Your task to perform on an android device: Clear the cart on walmart. Add lenovo thinkpad to the cart on walmart, then select checkout. Image 0: 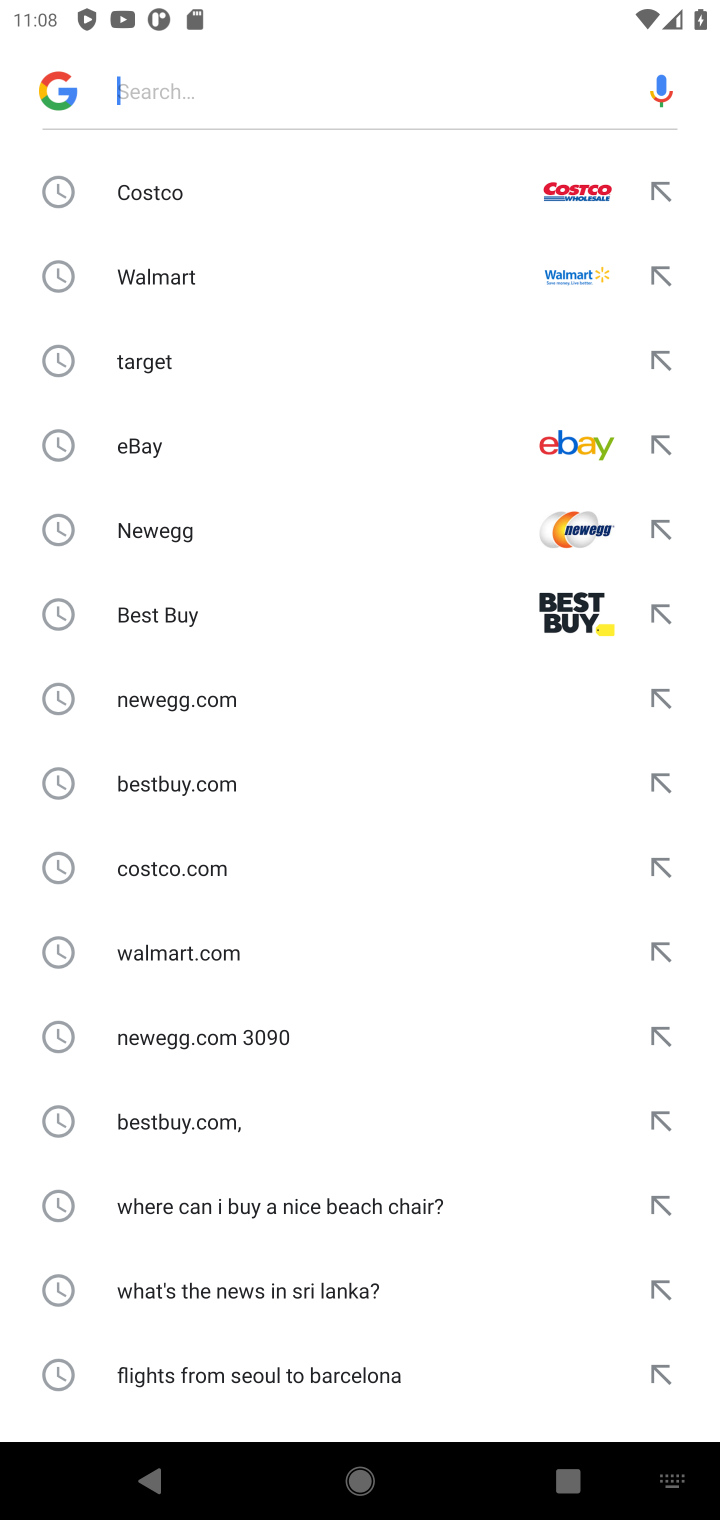
Step 0: click (205, 290)
Your task to perform on an android device: Clear the cart on walmart. Add lenovo thinkpad to the cart on walmart, then select checkout. Image 1: 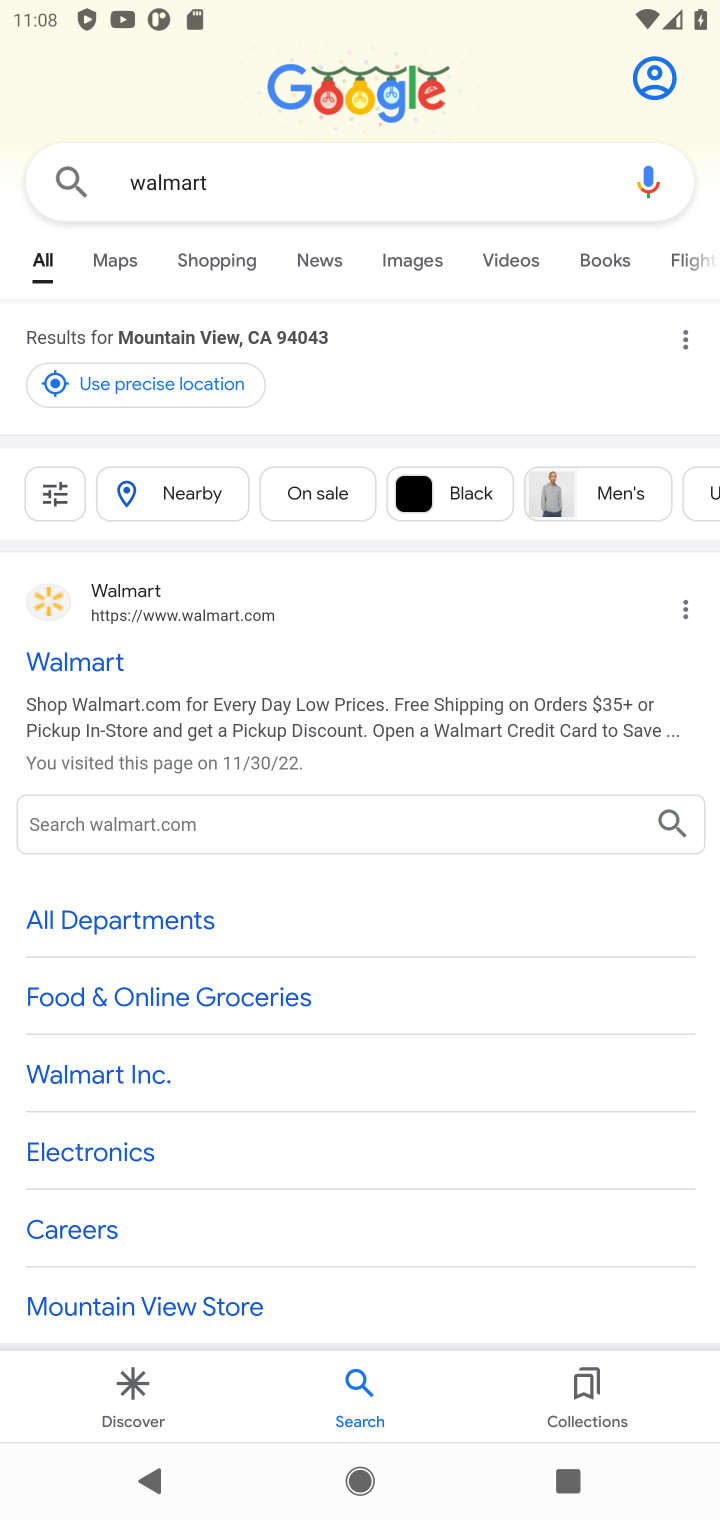
Step 1: click (67, 667)
Your task to perform on an android device: Clear the cart on walmart. Add lenovo thinkpad to the cart on walmart, then select checkout. Image 2: 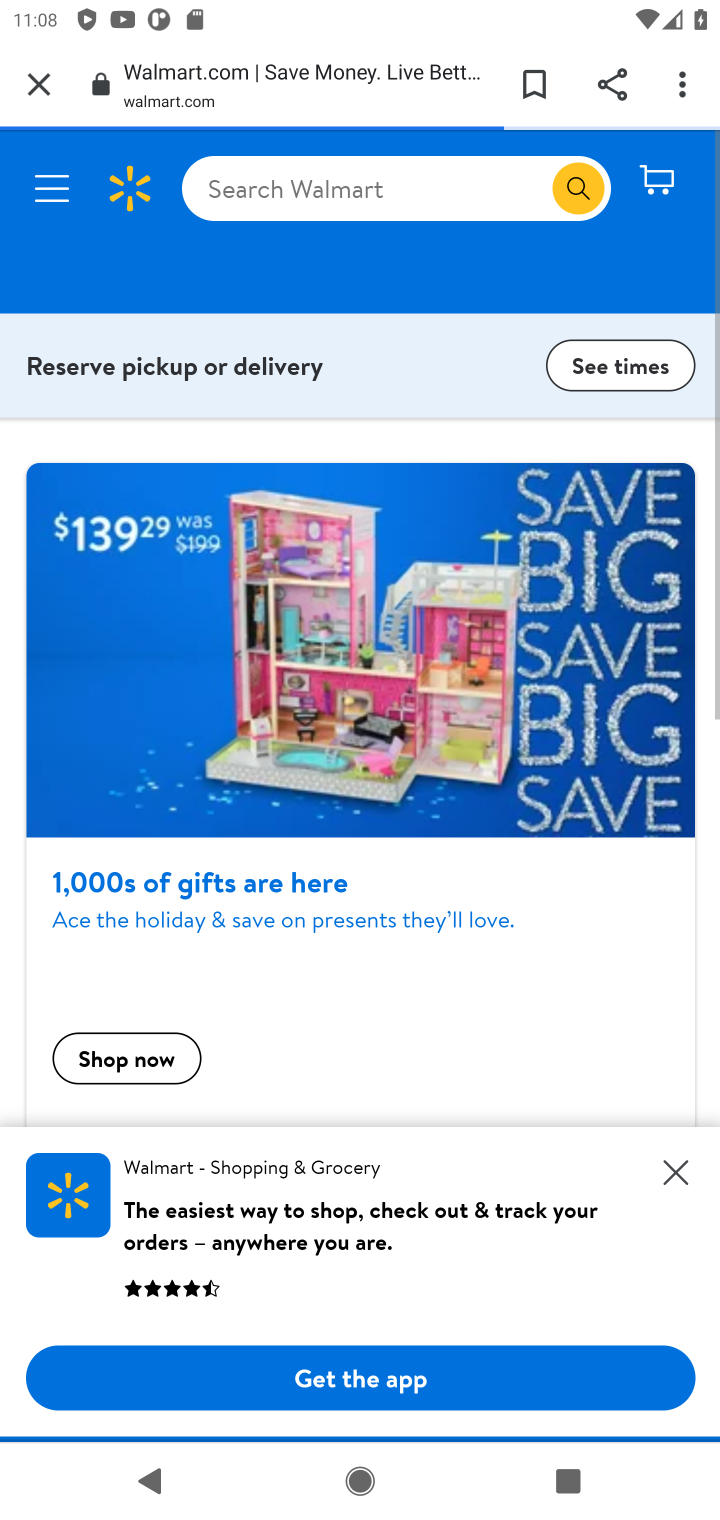
Step 2: click (369, 191)
Your task to perform on an android device: Clear the cart on walmart. Add lenovo thinkpad to the cart on walmart, then select checkout. Image 3: 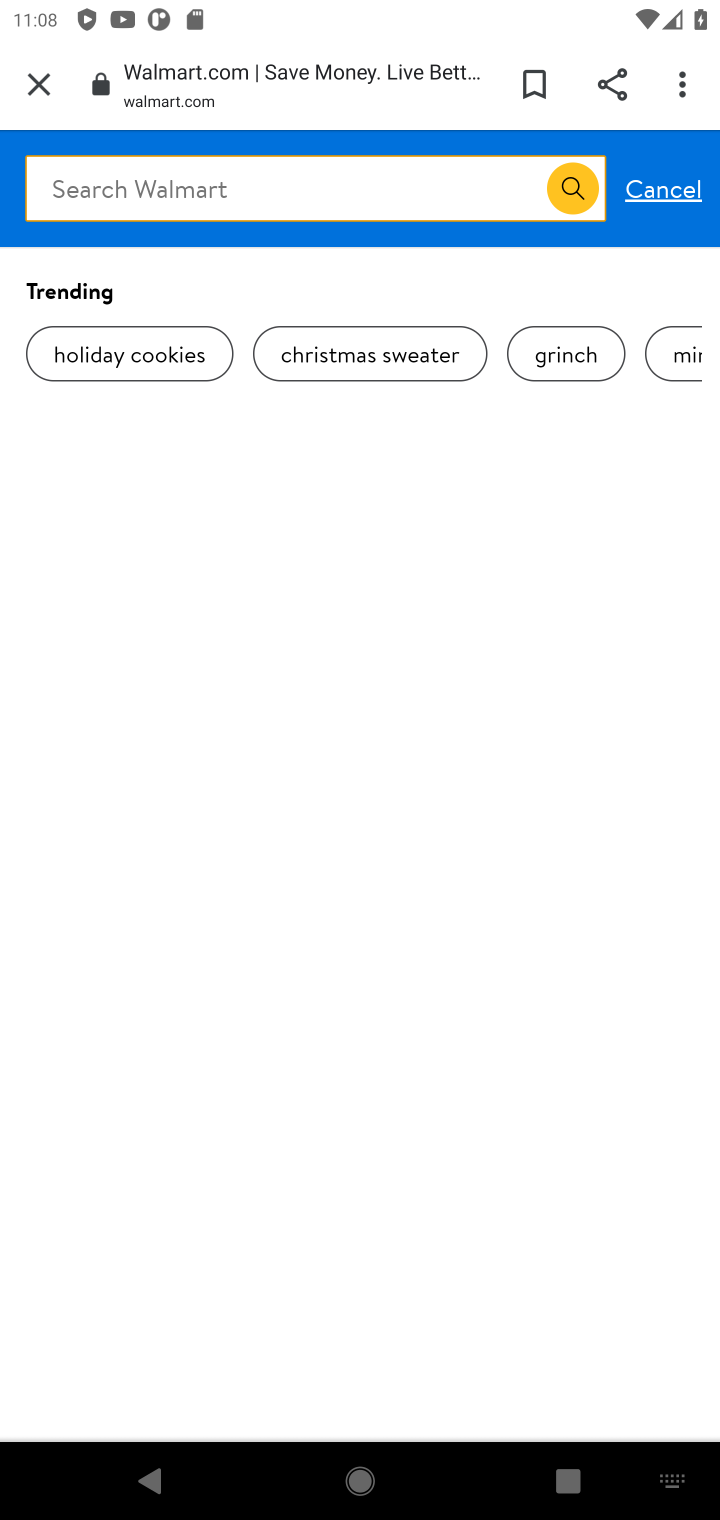
Step 3: type "lenovo thinkpad"
Your task to perform on an android device: Clear the cart on walmart. Add lenovo thinkpad to the cart on walmart, then select checkout. Image 4: 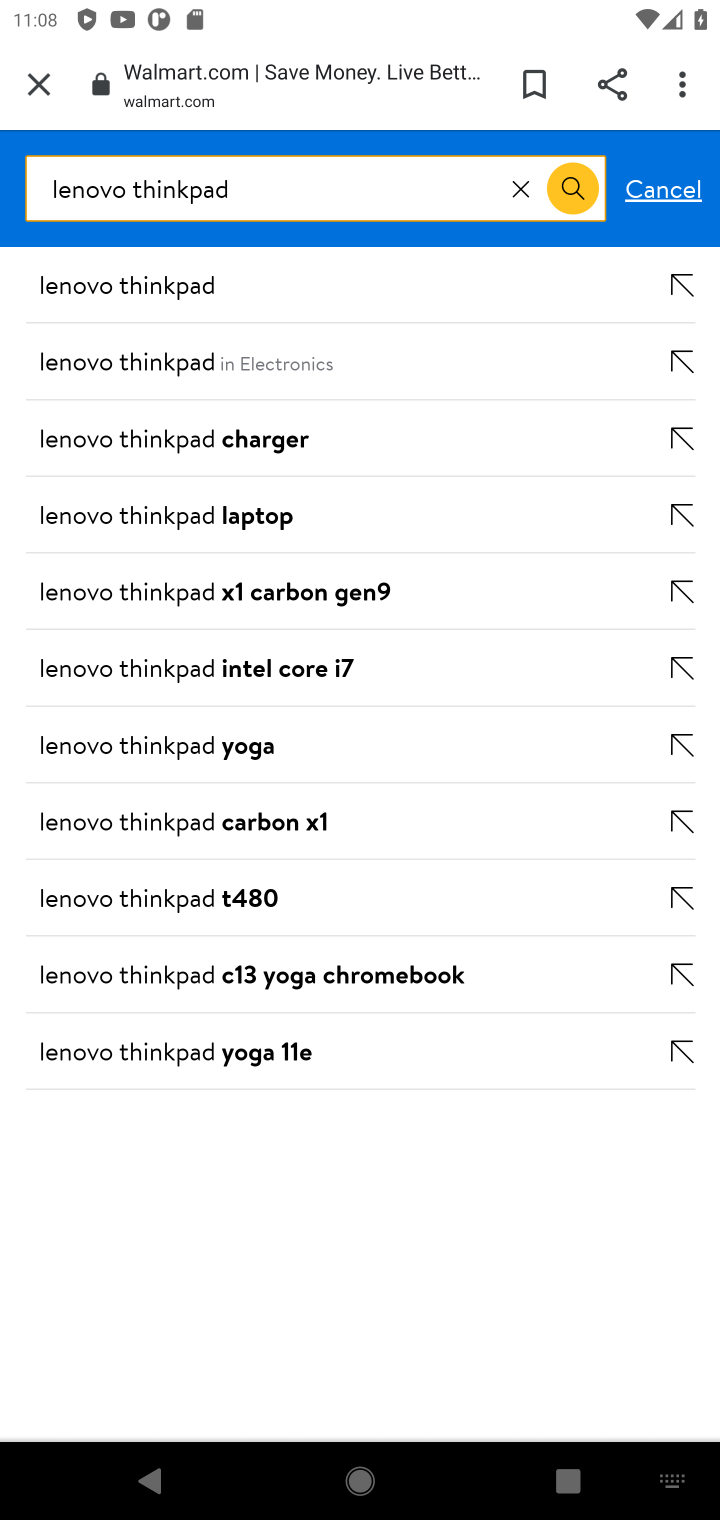
Step 4: click (127, 280)
Your task to perform on an android device: Clear the cart on walmart. Add lenovo thinkpad to the cart on walmart, then select checkout. Image 5: 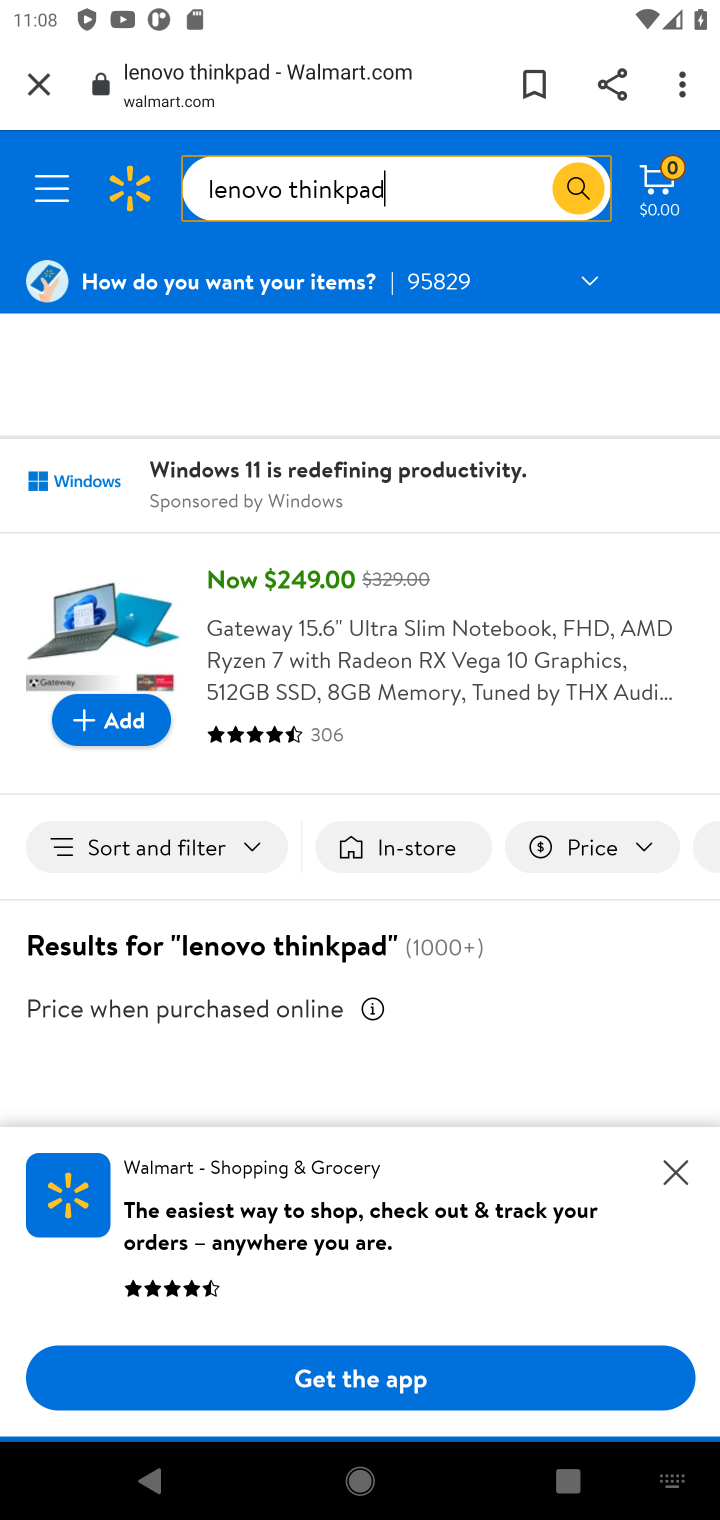
Step 5: drag from (502, 1002) to (471, 299)
Your task to perform on an android device: Clear the cart on walmart. Add lenovo thinkpad to the cart on walmart, then select checkout. Image 6: 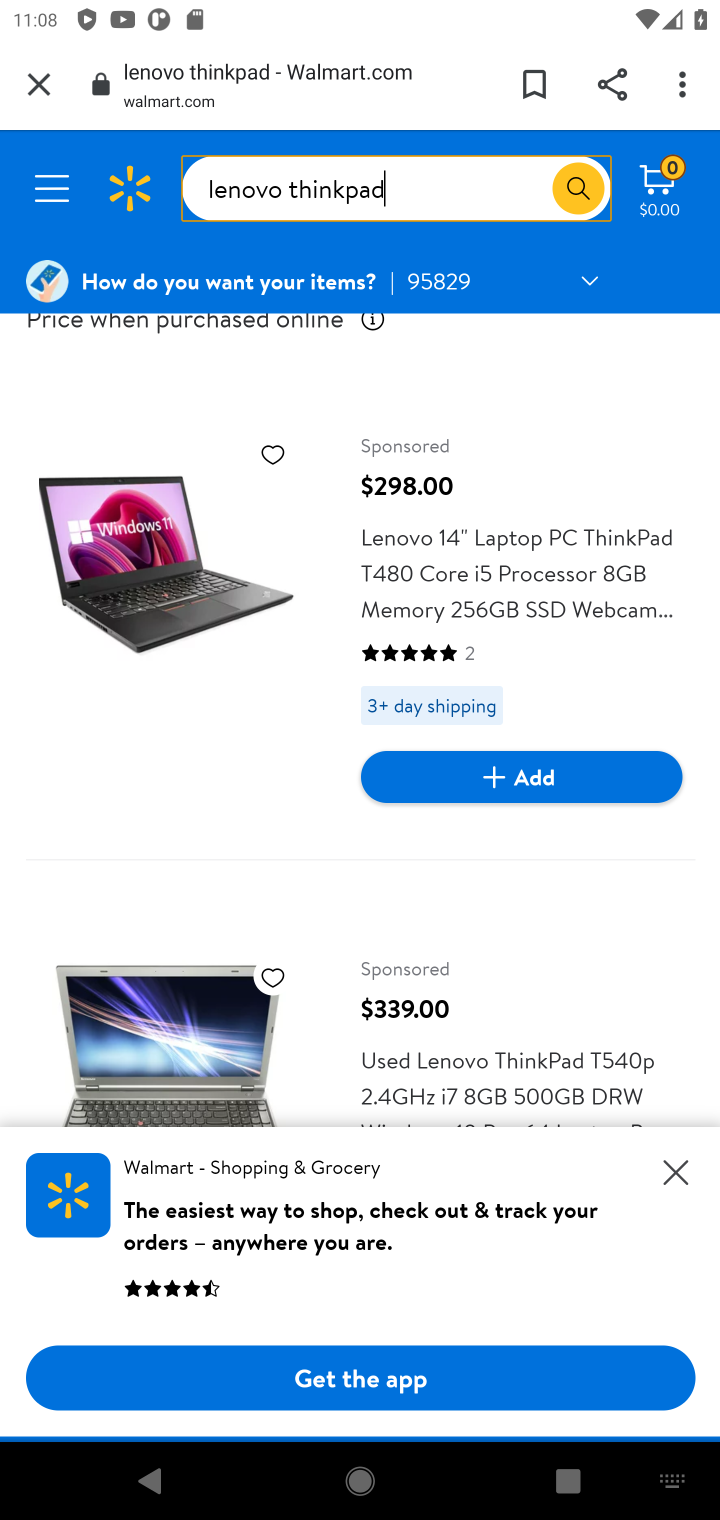
Step 6: click (515, 777)
Your task to perform on an android device: Clear the cart on walmart. Add lenovo thinkpad to the cart on walmart, then select checkout. Image 7: 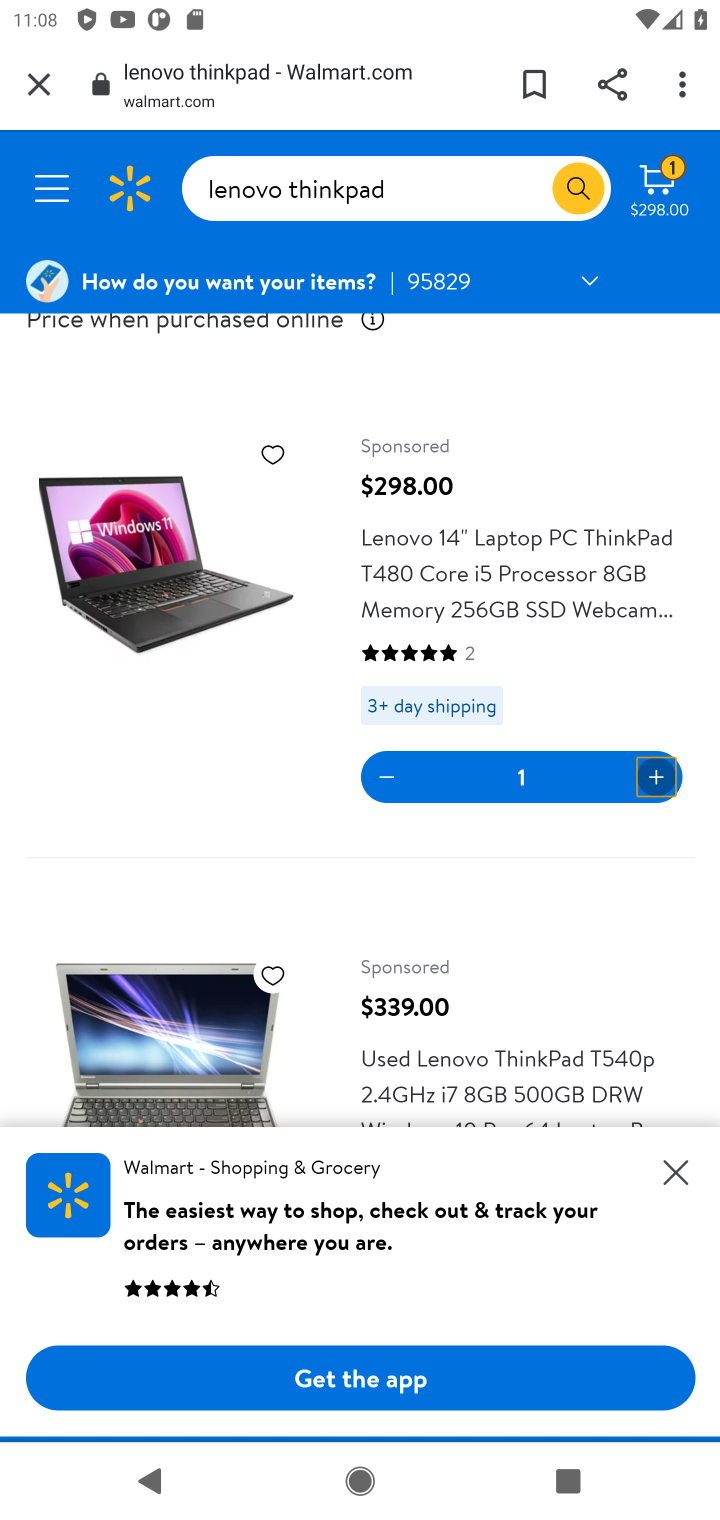
Step 7: click (661, 180)
Your task to perform on an android device: Clear the cart on walmart. Add lenovo thinkpad to the cart on walmart, then select checkout. Image 8: 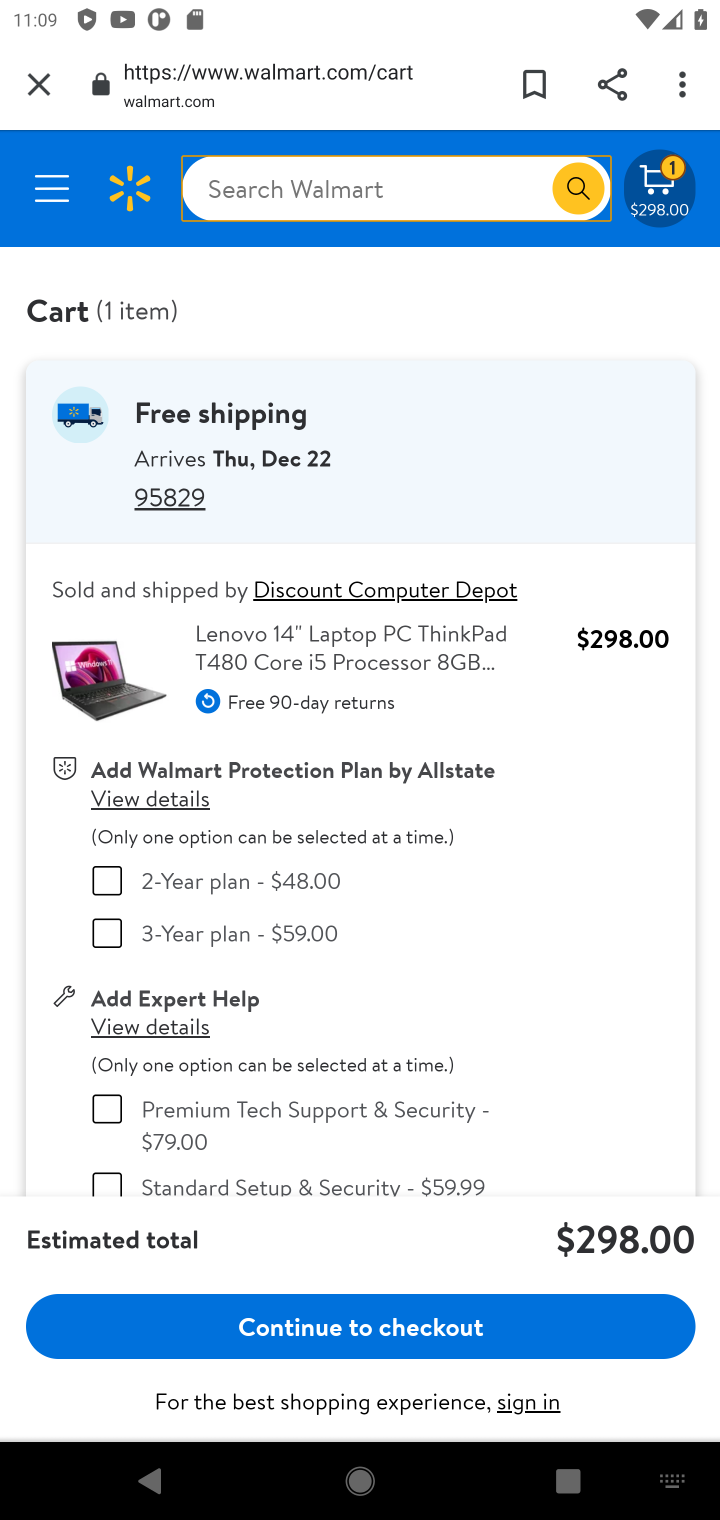
Step 8: click (662, 181)
Your task to perform on an android device: Clear the cart on walmart. Add lenovo thinkpad to the cart on walmart, then select checkout. Image 9: 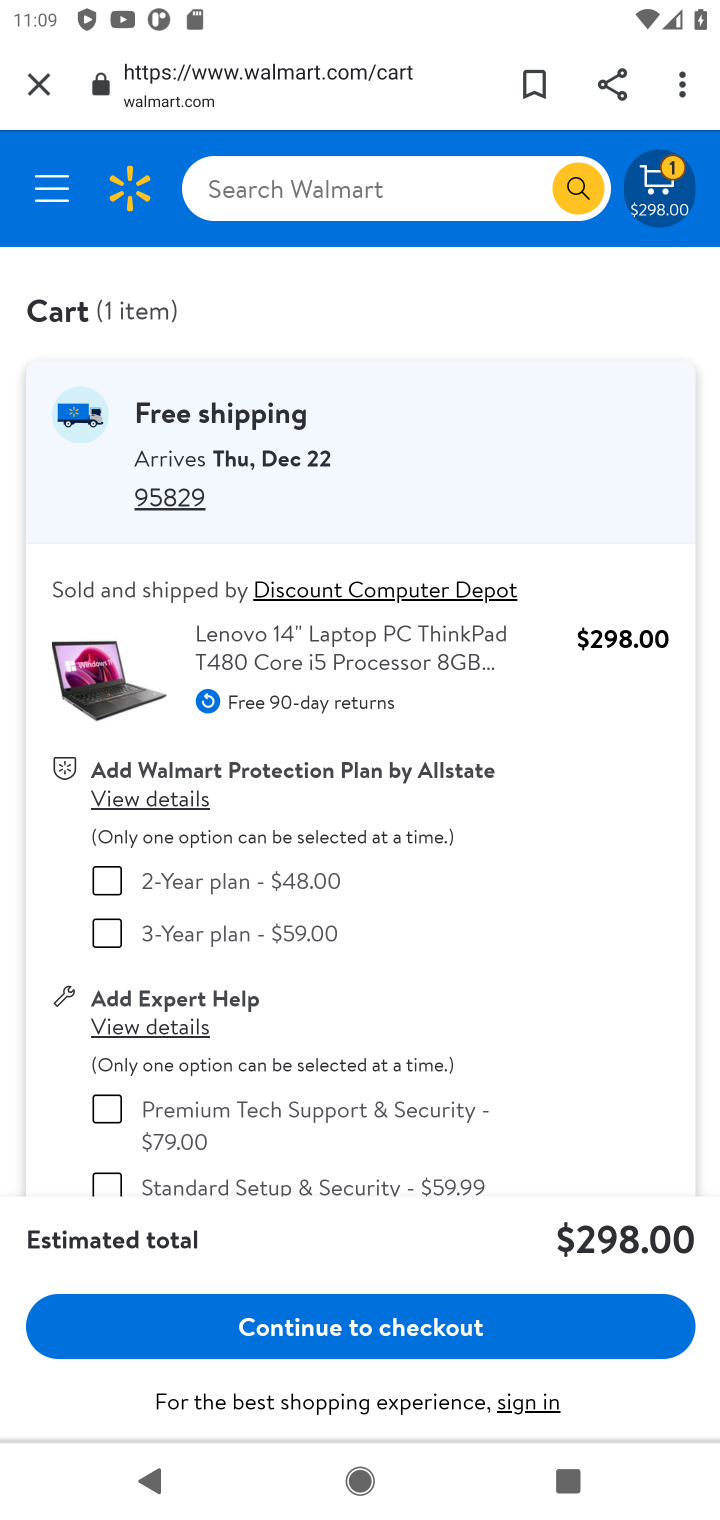
Step 9: click (359, 1336)
Your task to perform on an android device: Clear the cart on walmart. Add lenovo thinkpad to the cart on walmart, then select checkout. Image 10: 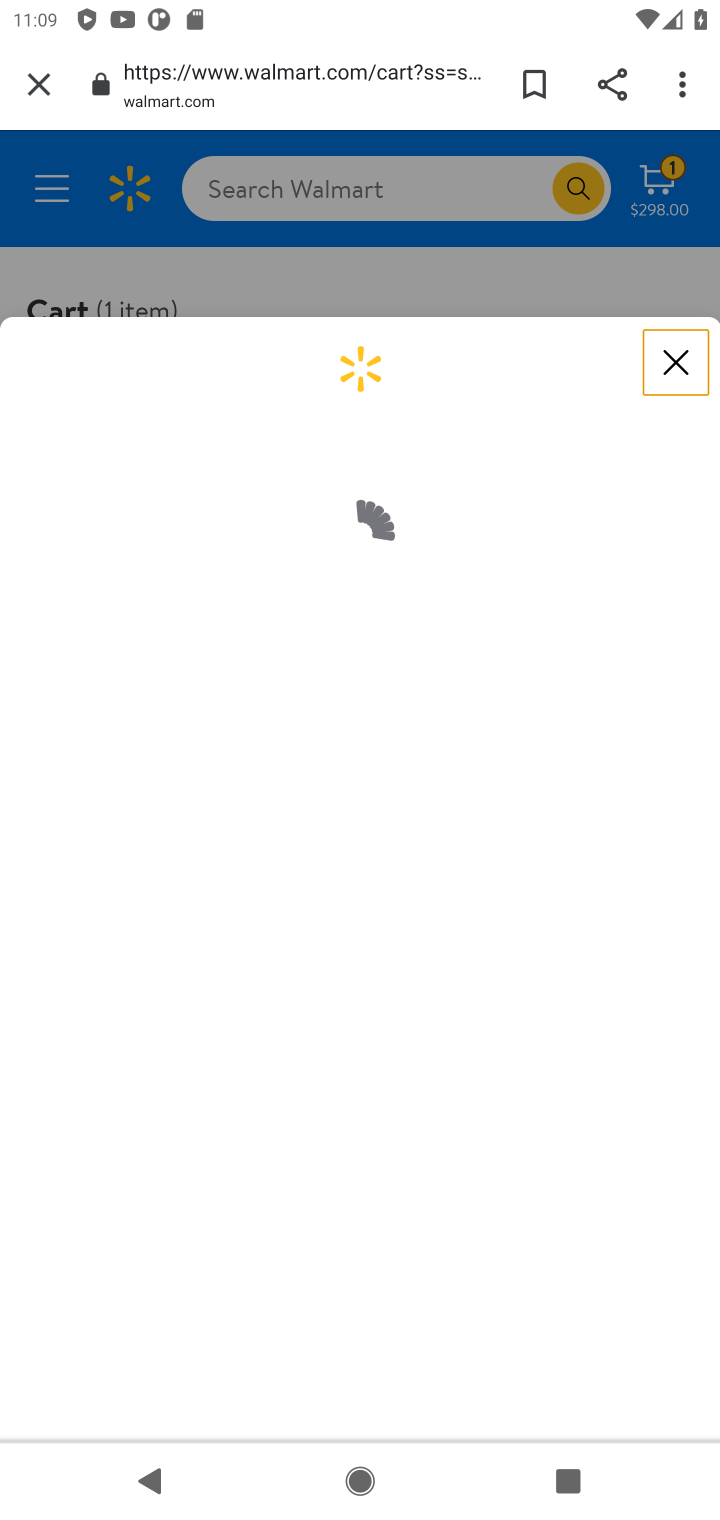
Step 10: task complete